Your task to perform on an android device: Open Youtube and go to "Your channel" Image 0: 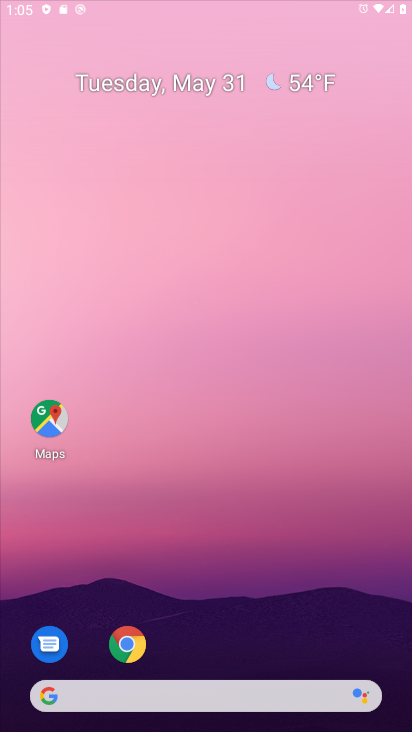
Step 0: press home button
Your task to perform on an android device: Open Youtube and go to "Your channel" Image 1: 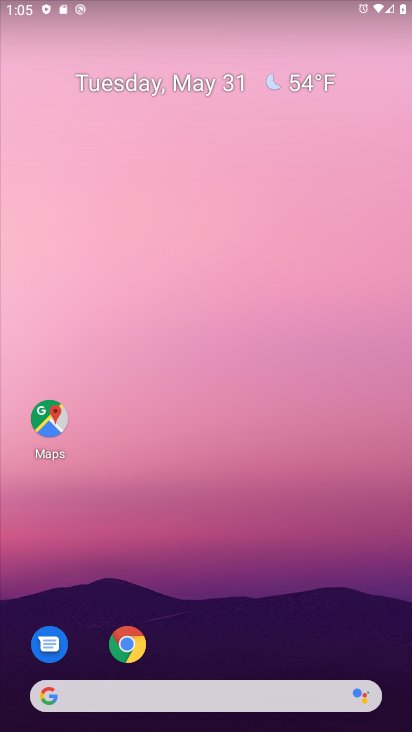
Step 1: drag from (270, 665) to (256, 100)
Your task to perform on an android device: Open Youtube and go to "Your channel" Image 2: 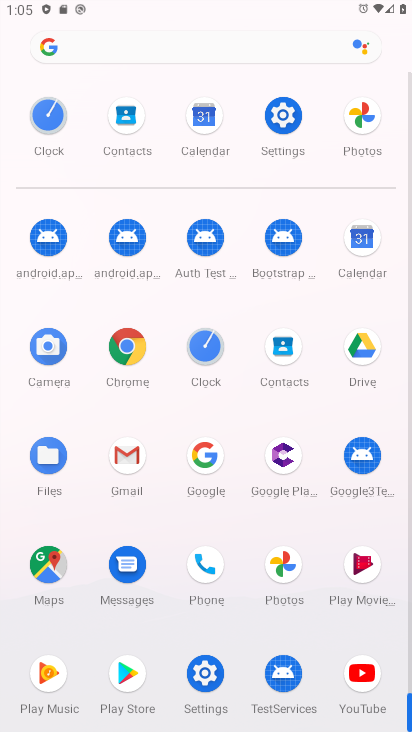
Step 2: click (367, 674)
Your task to perform on an android device: Open Youtube and go to "Your channel" Image 3: 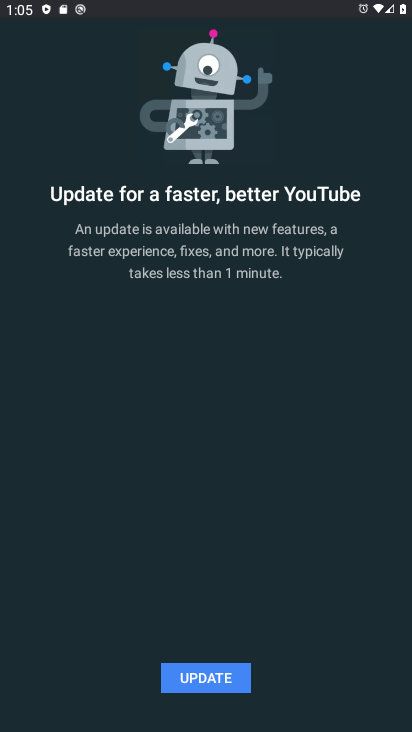
Step 3: click (213, 685)
Your task to perform on an android device: Open Youtube and go to "Your channel" Image 4: 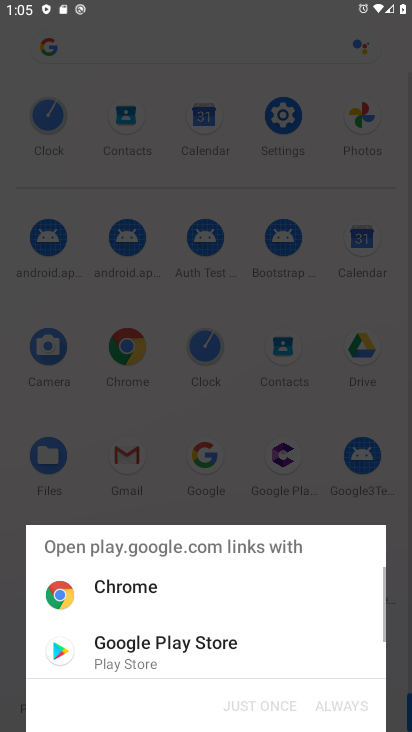
Step 4: click (147, 651)
Your task to perform on an android device: Open Youtube and go to "Your channel" Image 5: 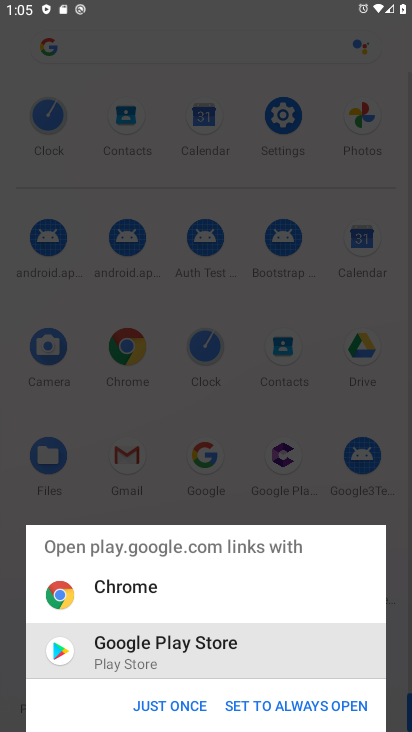
Step 5: click (183, 703)
Your task to perform on an android device: Open Youtube and go to "Your channel" Image 6: 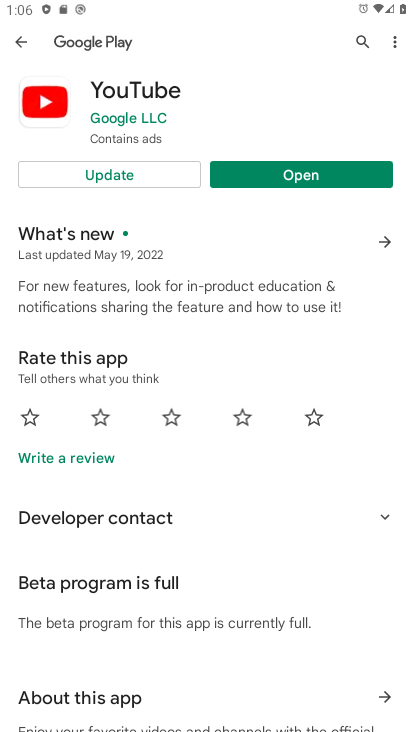
Step 6: click (152, 173)
Your task to perform on an android device: Open Youtube and go to "Your channel" Image 7: 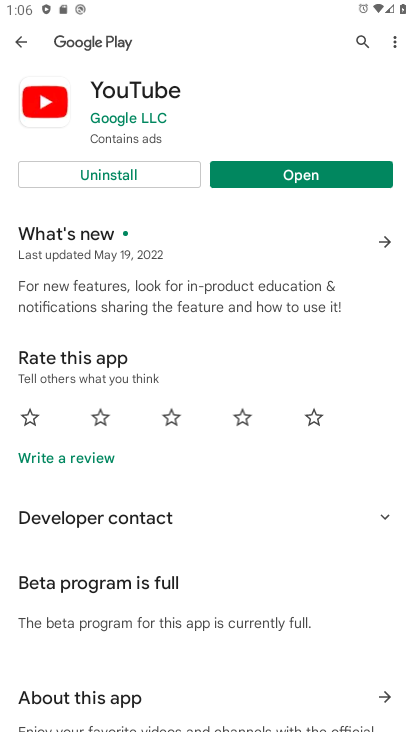
Step 7: click (261, 177)
Your task to perform on an android device: Open Youtube and go to "Your channel" Image 8: 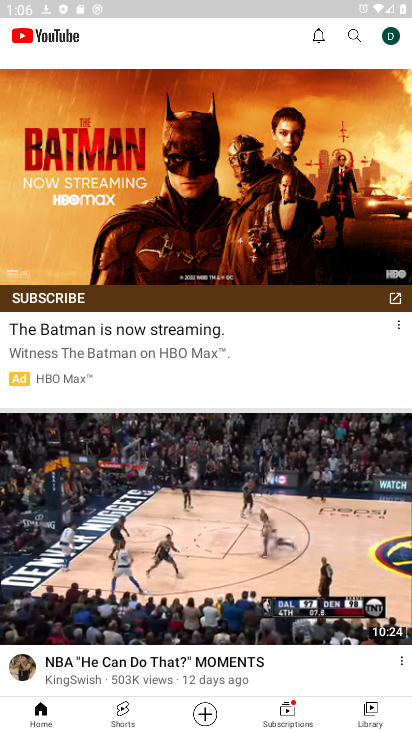
Step 8: click (394, 35)
Your task to perform on an android device: Open Youtube and go to "Your channel" Image 9: 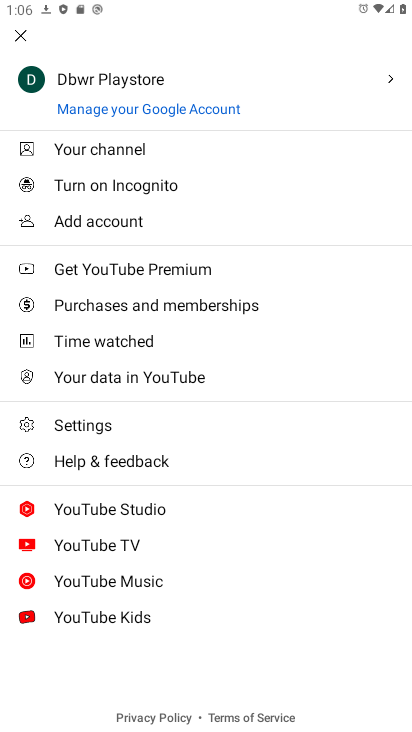
Step 9: click (98, 150)
Your task to perform on an android device: Open Youtube and go to "Your channel" Image 10: 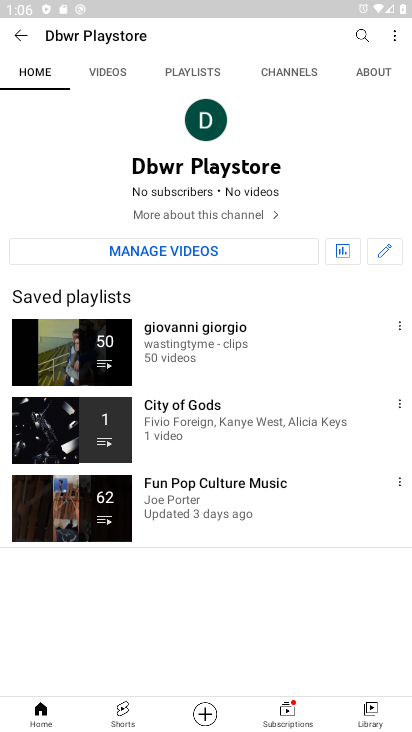
Step 10: task complete